Your task to perform on an android device: Go to display settings Image 0: 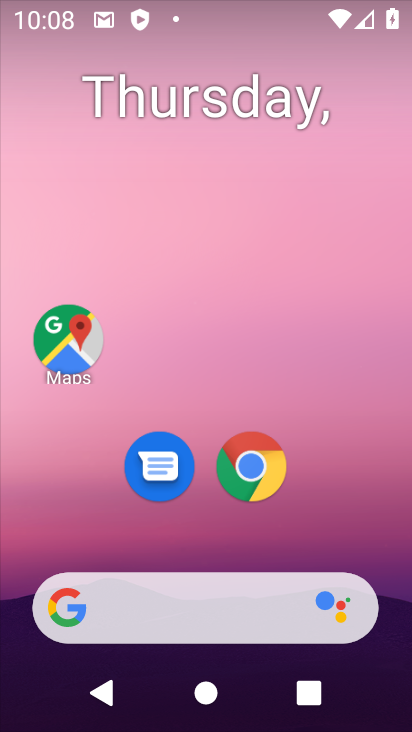
Step 0: drag from (224, 550) to (235, 130)
Your task to perform on an android device: Go to display settings Image 1: 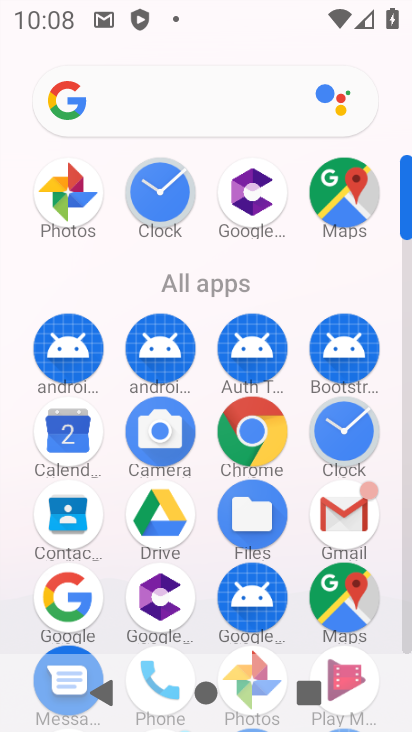
Step 1: drag from (200, 543) to (200, 202)
Your task to perform on an android device: Go to display settings Image 2: 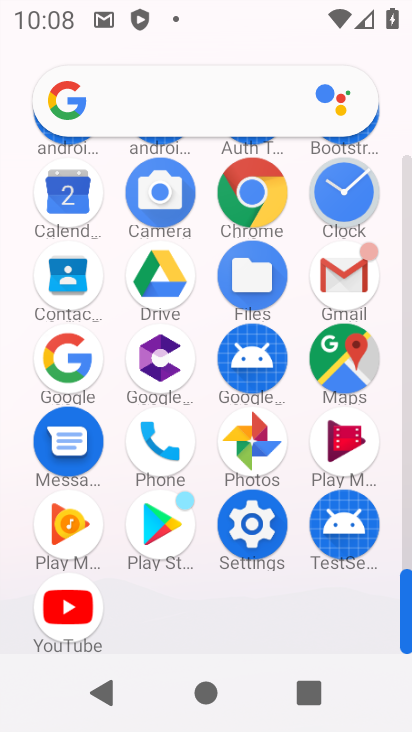
Step 2: click (251, 521)
Your task to perform on an android device: Go to display settings Image 3: 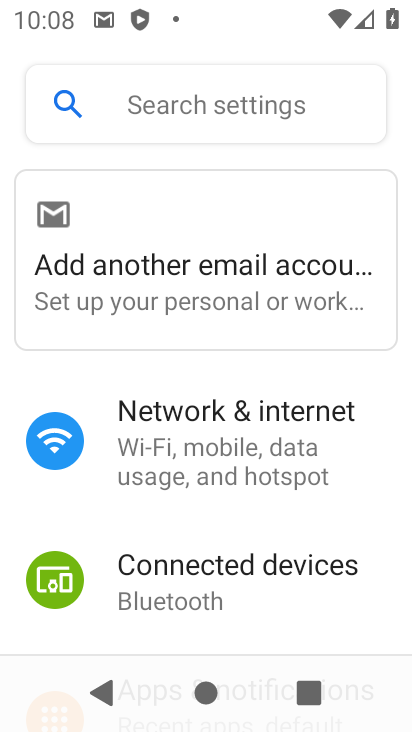
Step 3: drag from (241, 598) to (285, 166)
Your task to perform on an android device: Go to display settings Image 4: 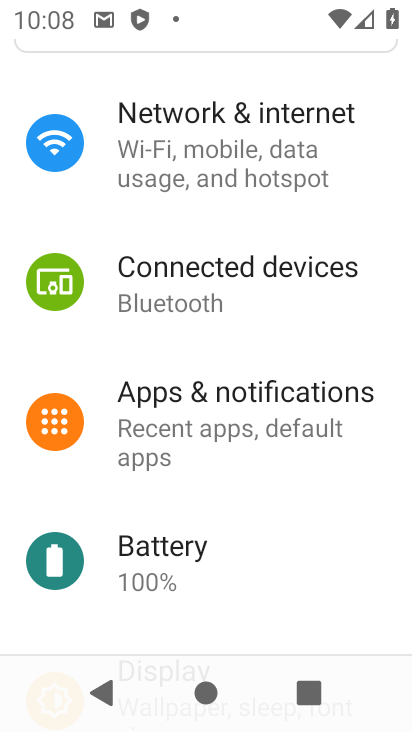
Step 4: drag from (222, 597) to (233, 263)
Your task to perform on an android device: Go to display settings Image 5: 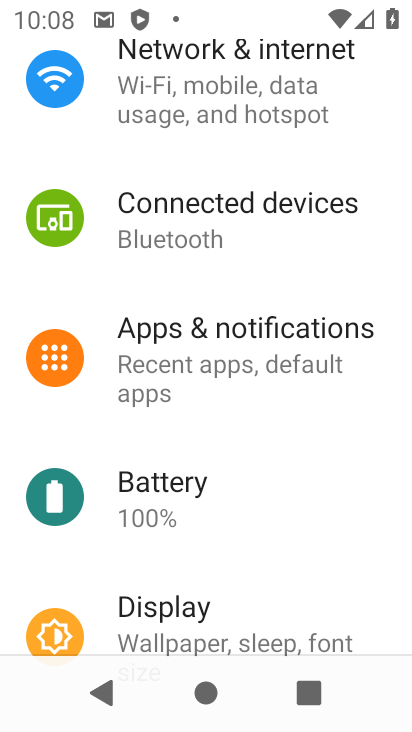
Step 5: click (198, 611)
Your task to perform on an android device: Go to display settings Image 6: 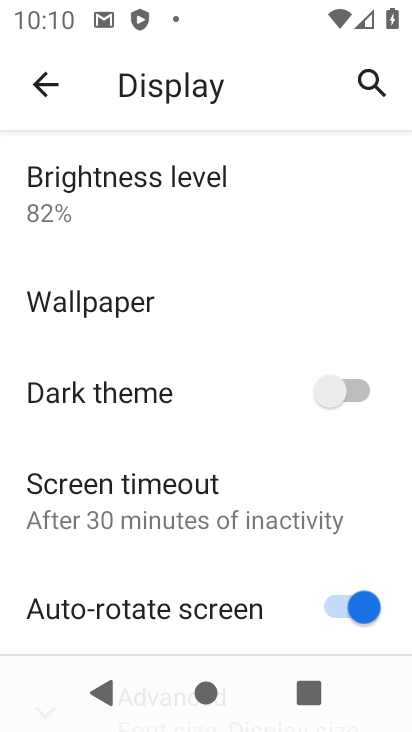
Step 6: task complete